Your task to perform on an android device: see sites visited before in the chrome app Image 0: 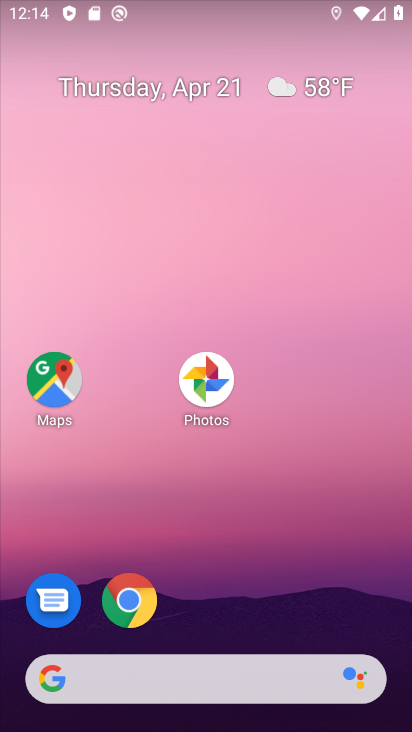
Step 0: drag from (191, 652) to (195, 30)
Your task to perform on an android device: see sites visited before in the chrome app Image 1: 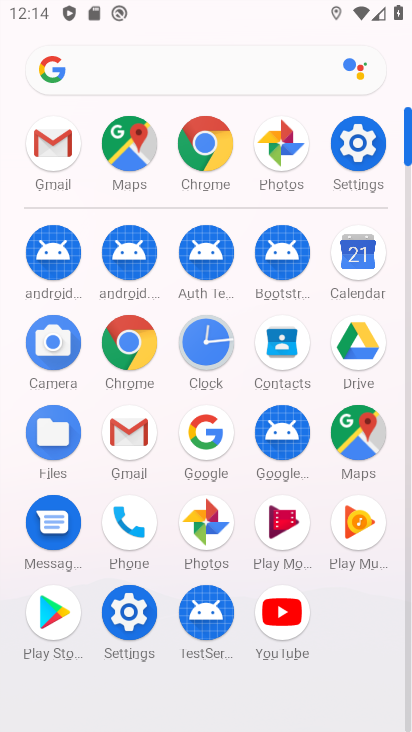
Step 1: click (128, 331)
Your task to perform on an android device: see sites visited before in the chrome app Image 2: 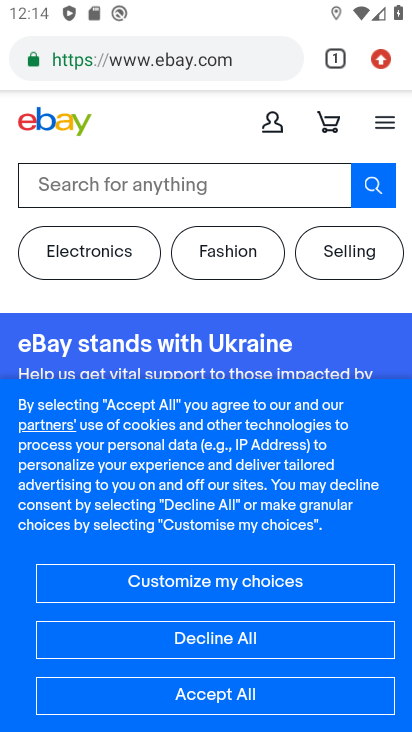
Step 2: click (380, 61)
Your task to perform on an android device: see sites visited before in the chrome app Image 3: 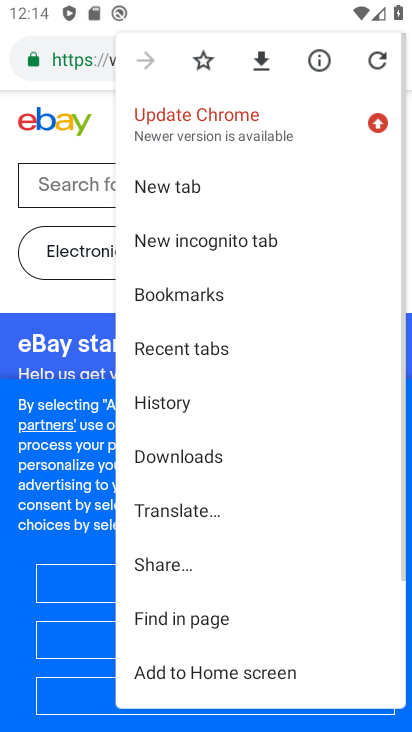
Step 3: click (200, 397)
Your task to perform on an android device: see sites visited before in the chrome app Image 4: 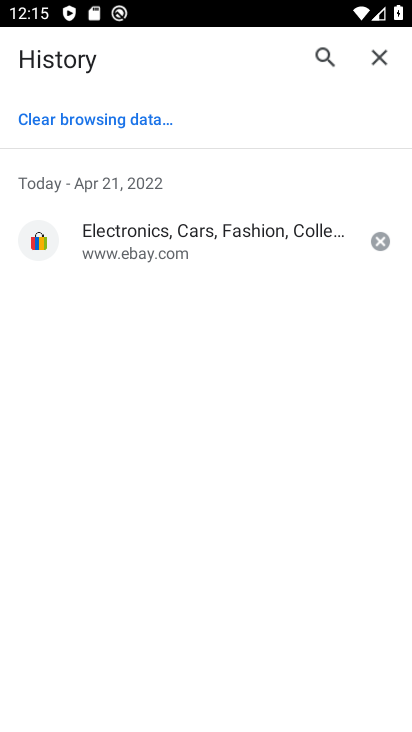
Step 4: task complete